Your task to perform on an android device: Go to notification settings Image 0: 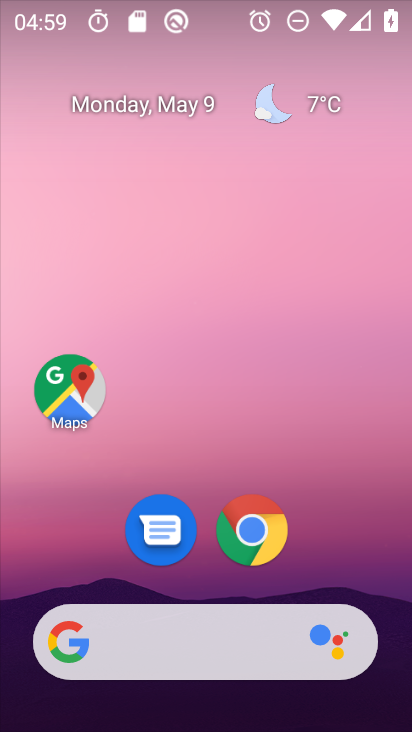
Step 0: drag from (216, 535) to (282, 0)
Your task to perform on an android device: Go to notification settings Image 1: 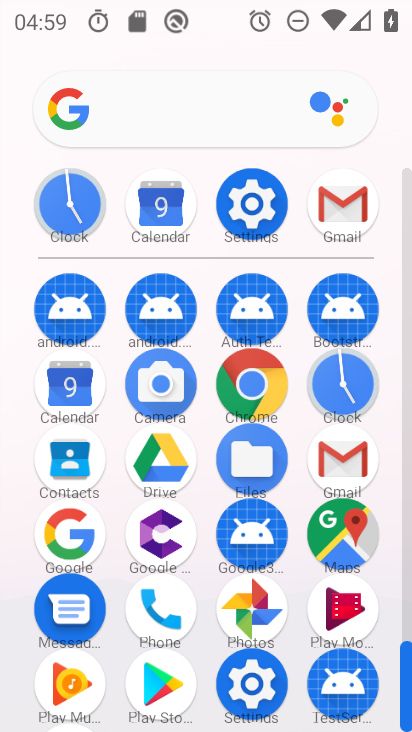
Step 1: click (266, 197)
Your task to perform on an android device: Go to notification settings Image 2: 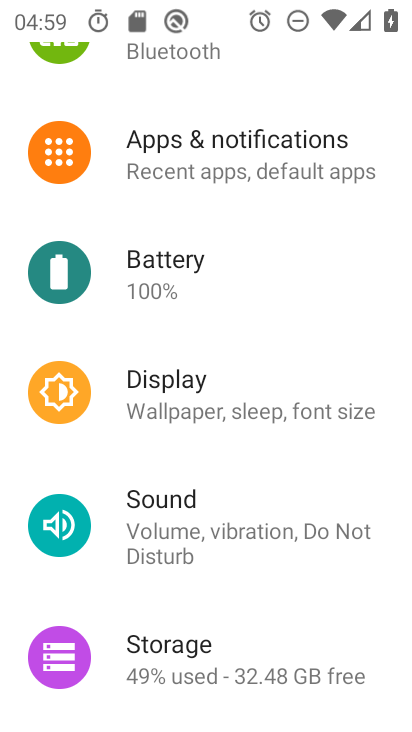
Step 2: drag from (260, 210) to (188, 701)
Your task to perform on an android device: Go to notification settings Image 3: 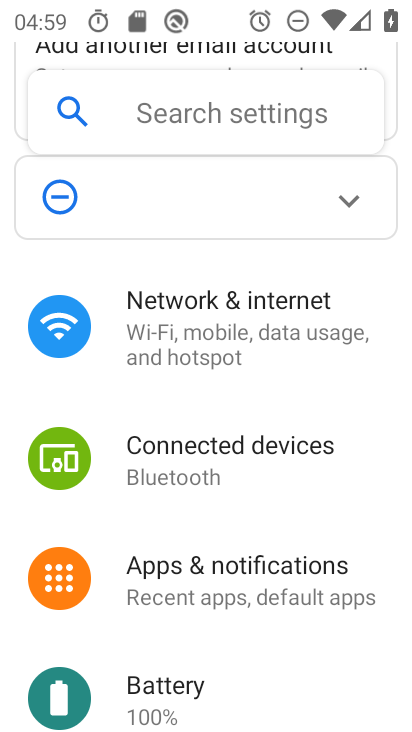
Step 3: click (258, 606)
Your task to perform on an android device: Go to notification settings Image 4: 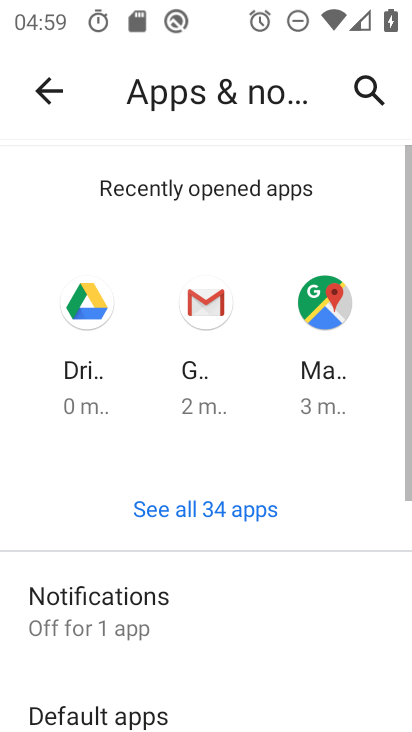
Step 4: task complete